Your task to perform on an android device: Open Reddit.com Image 0: 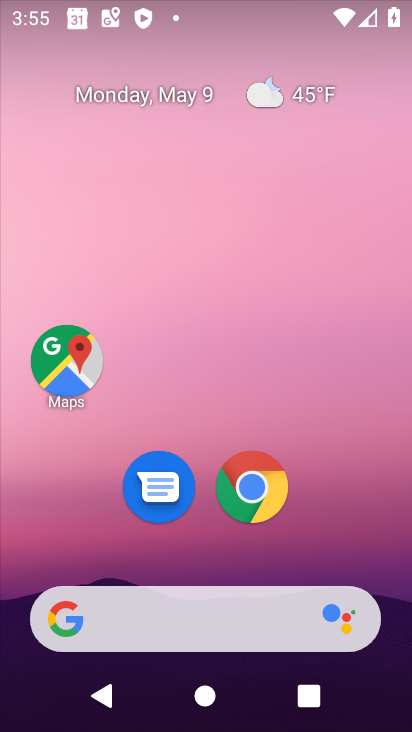
Step 0: click (255, 492)
Your task to perform on an android device: Open Reddit.com Image 1: 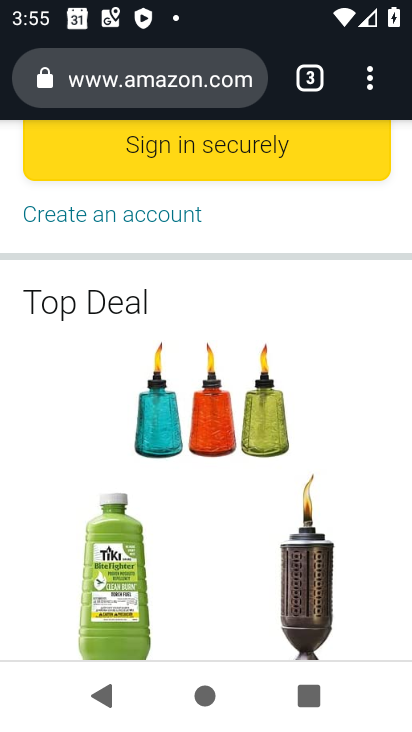
Step 1: click (312, 85)
Your task to perform on an android device: Open Reddit.com Image 2: 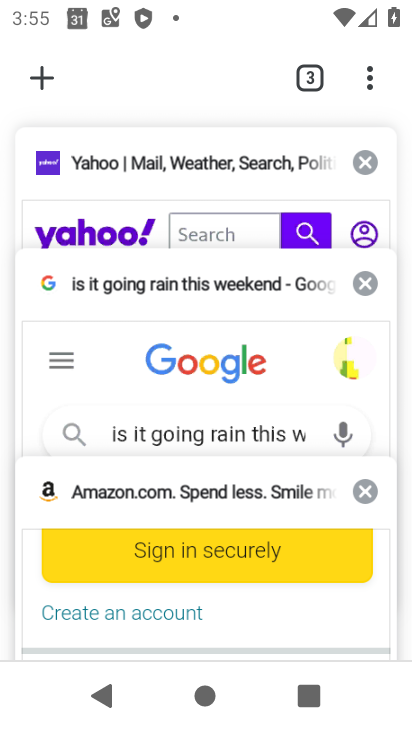
Step 2: click (48, 75)
Your task to perform on an android device: Open Reddit.com Image 3: 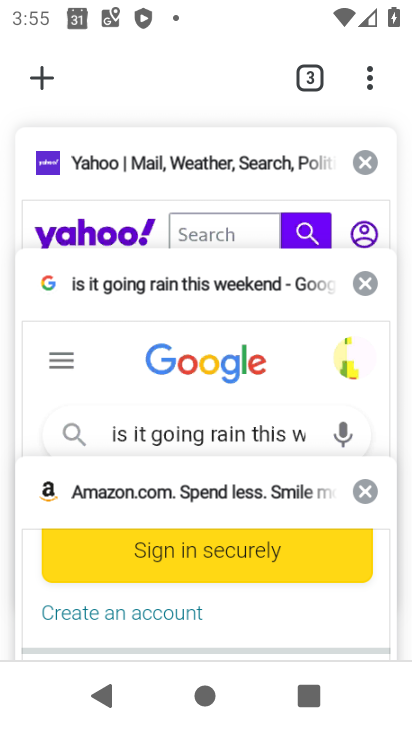
Step 3: click (358, 162)
Your task to perform on an android device: Open Reddit.com Image 4: 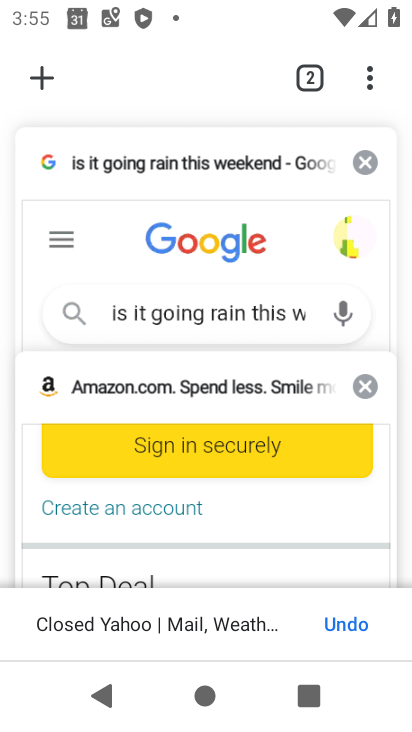
Step 4: click (359, 164)
Your task to perform on an android device: Open Reddit.com Image 5: 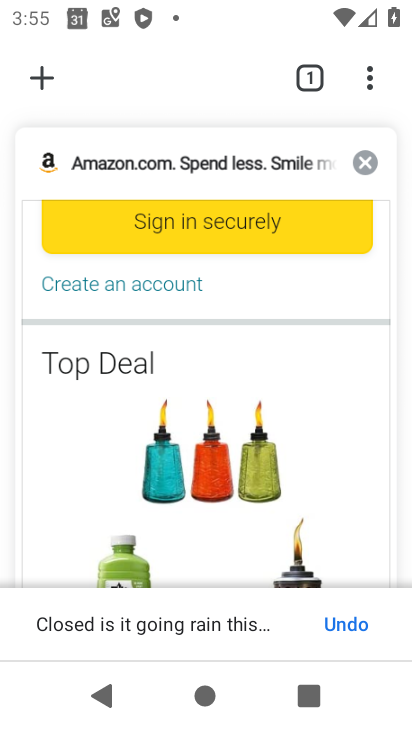
Step 5: click (358, 164)
Your task to perform on an android device: Open Reddit.com Image 6: 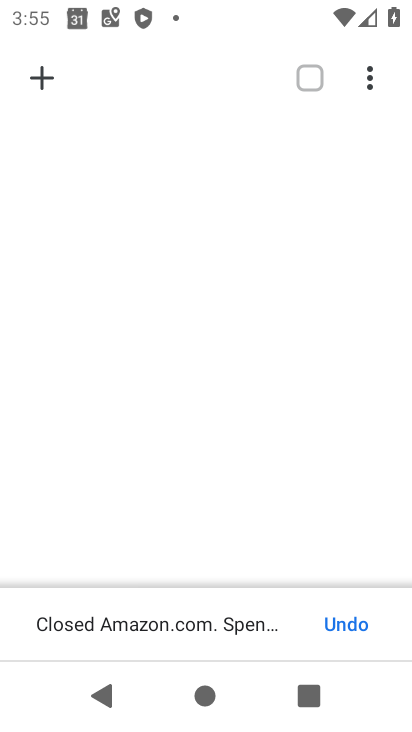
Step 6: click (43, 77)
Your task to perform on an android device: Open Reddit.com Image 7: 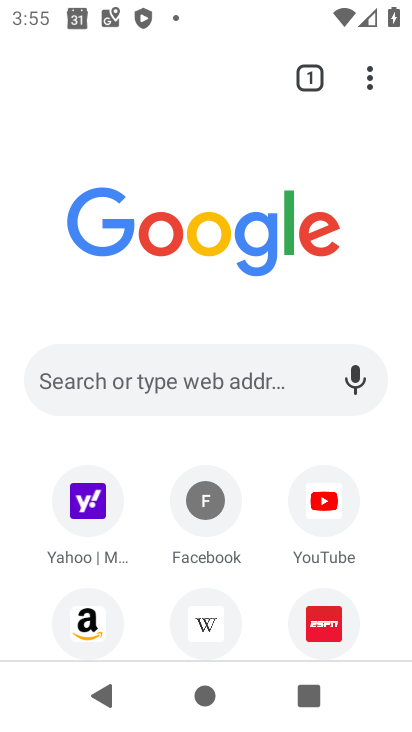
Step 7: drag from (247, 582) to (234, 431)
Your task to perform on an android device: Open Reddit.com Image 8: 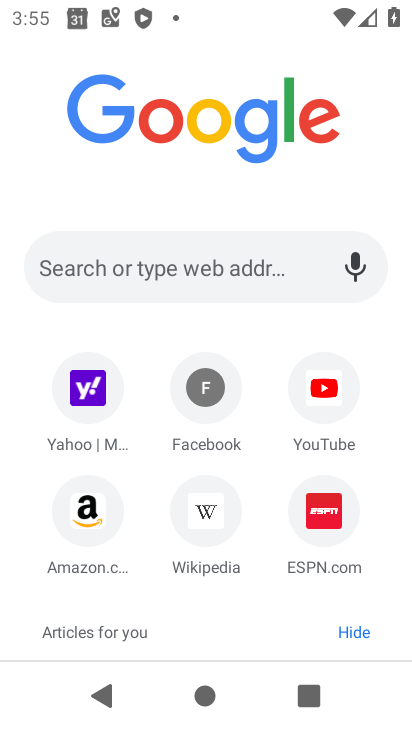
Step 8: click (108, 252)
Your task to perform on an android device: Open Reddit.com Image 9: 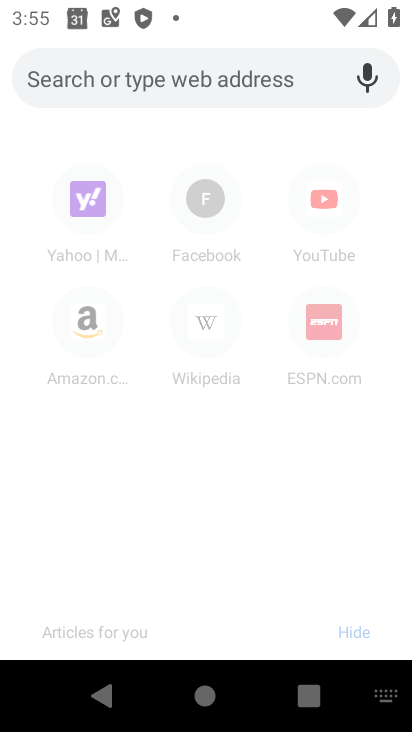
Step 9: type "Reddit.com"
Your task to perform on an android device: Open Reddit.com Image 10: 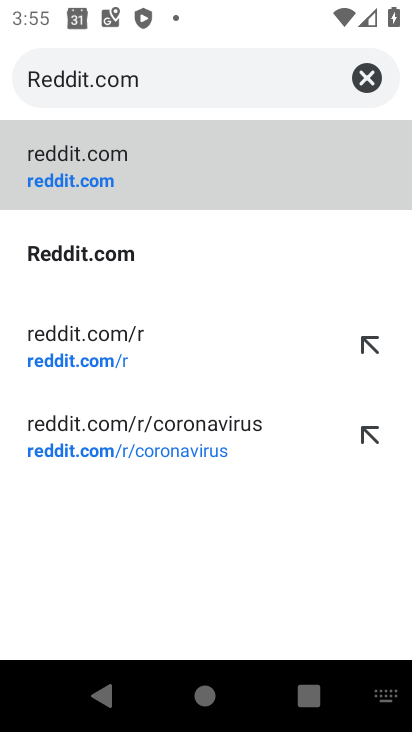
Step 10: click (26, 255)
Your task to perform on an android device: Open Reddit.com Image 11: 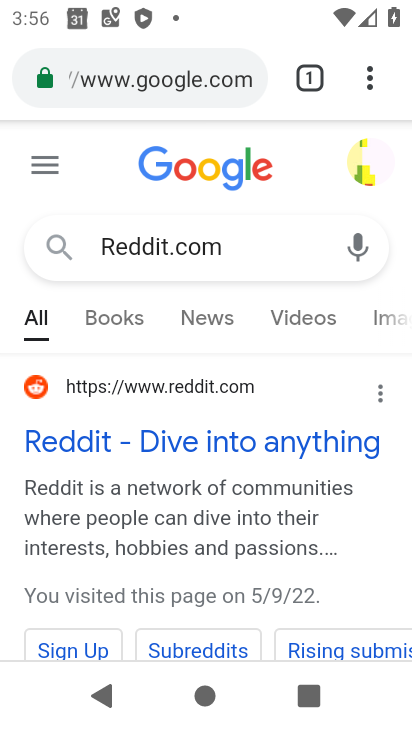
Step 11: click (148, 431)
Your task to perform on an android device: Open Reddit.com Image 12: 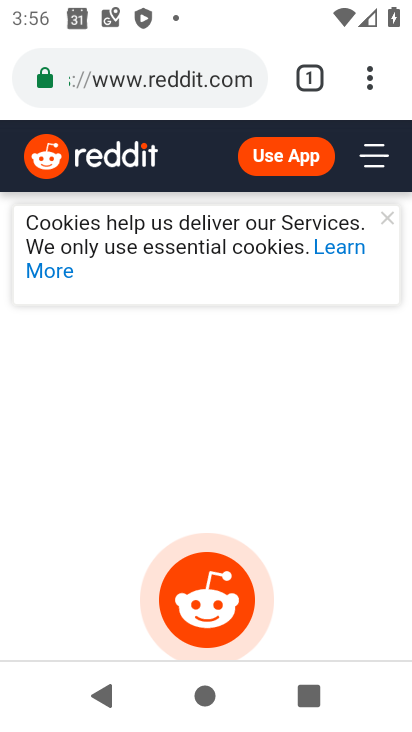
Step 12: task complete